Your task to perform on an android device: Search for seafood restaurants on Google Maps Image 0: 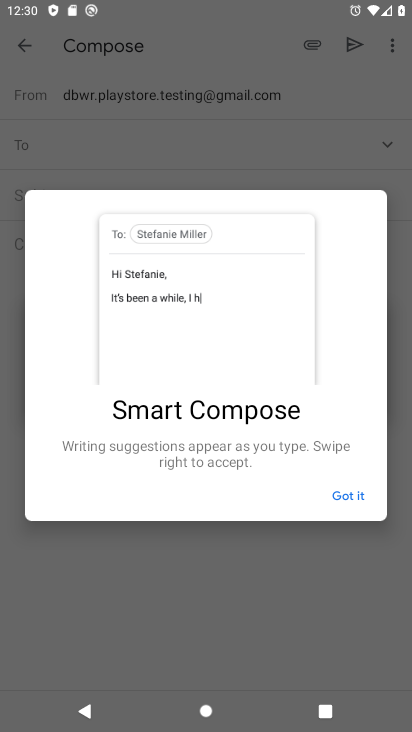
Step 0: press home button
Your task to perform on an android device: Search for seafood restaurants on Google Maps Image 1: 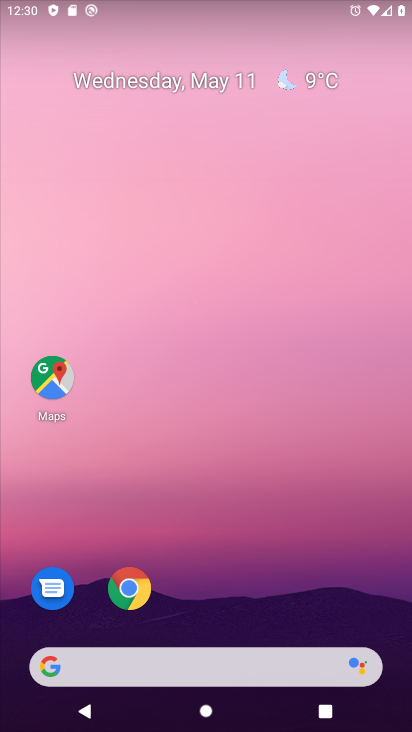
Step 1: click (49, 374)
Your task to perform on an android device: Search for seafood restaurants on Google Maps Image 2: 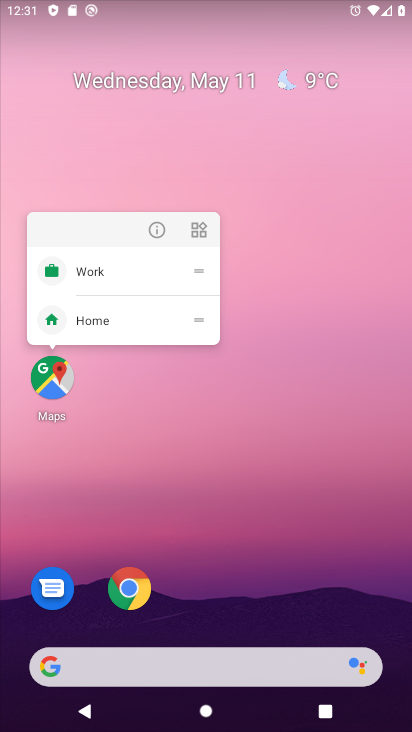
Step 2: click (48, 375)
Your task to perform on an android device: Search for seafood restaurants on Google Maps Image 3: 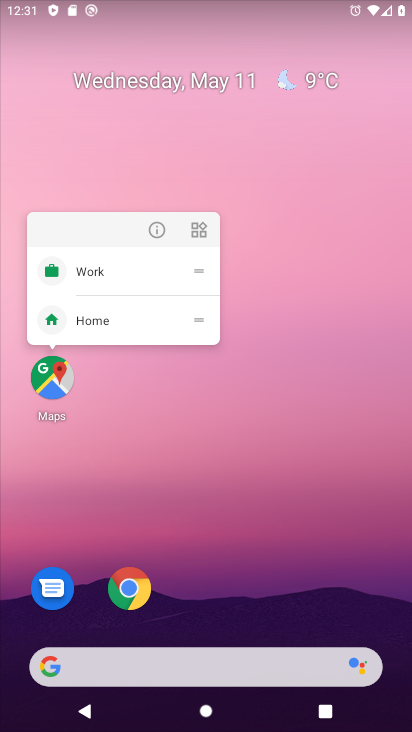
Step 3: click (54, 384)
Your task to perform on an android device: Search for seafood restaurants on Google Maps Image 4: 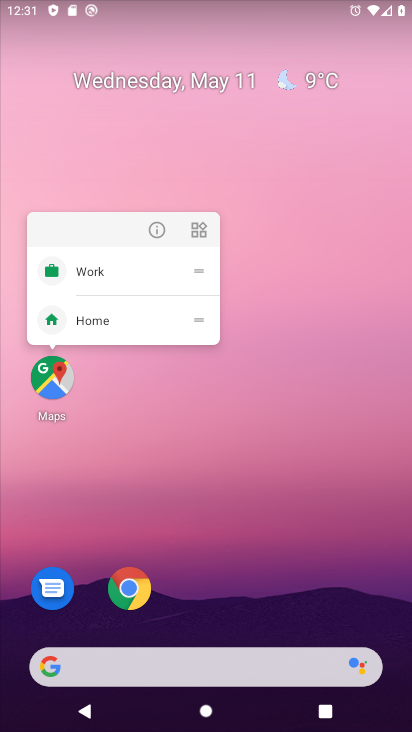
Step 4: click (62, 382)
Your task to perform on an android device: Search for seafood restaurants on Google Maps Image 5: 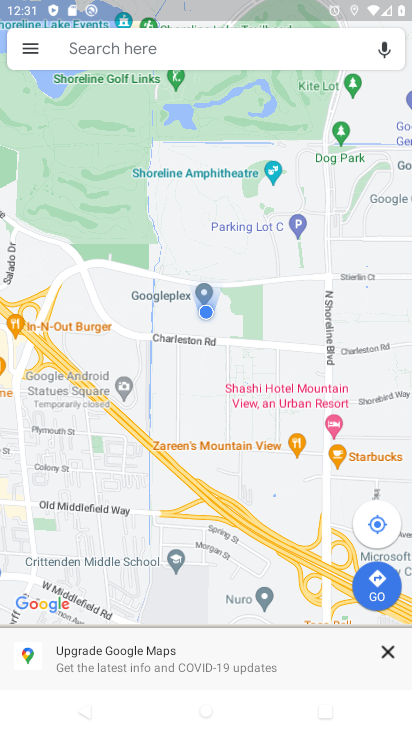
Step 5: click (88, 46)
Your task to perform on an android device: Search for seafood restaurants on Google Maps Image 6: 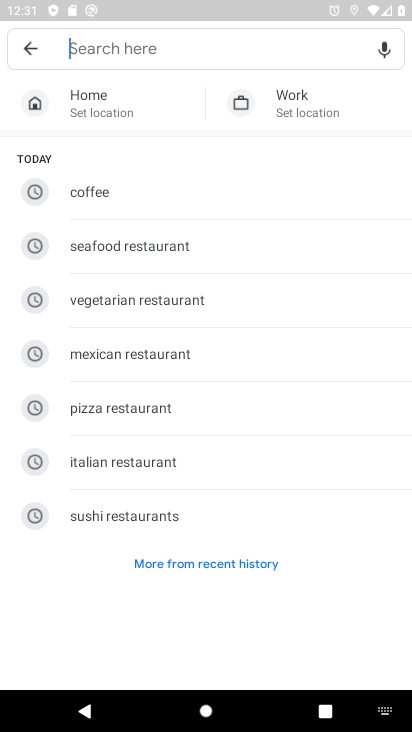
Step 6: type "seafood restaurant "
Your task to perform on an android device: Search for seafood restaurants on Google Maps Image 7: 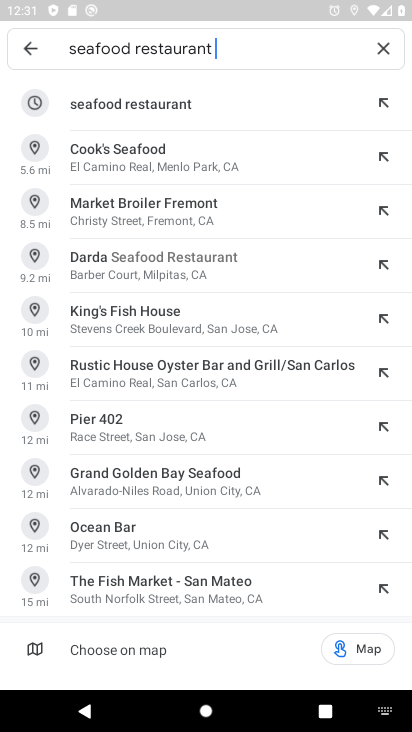
Step 7: click (133, 109)
Your task to perform on an android device: Search for seafood restaurants on Google Maps Image 8: 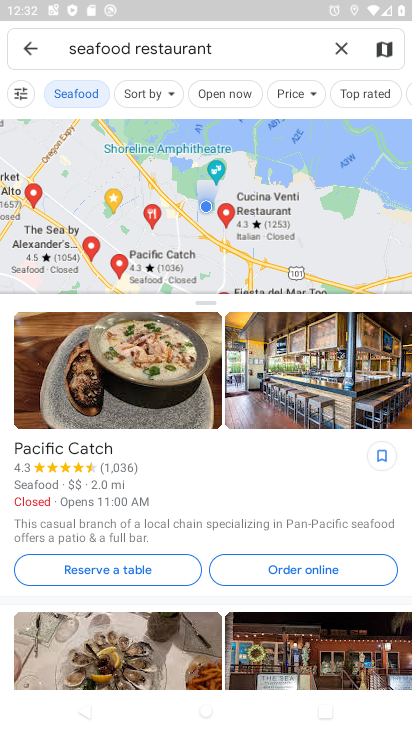
Step 8: task complete